Your task to perform on an android device: toggle translation in the chrome app Image 0: 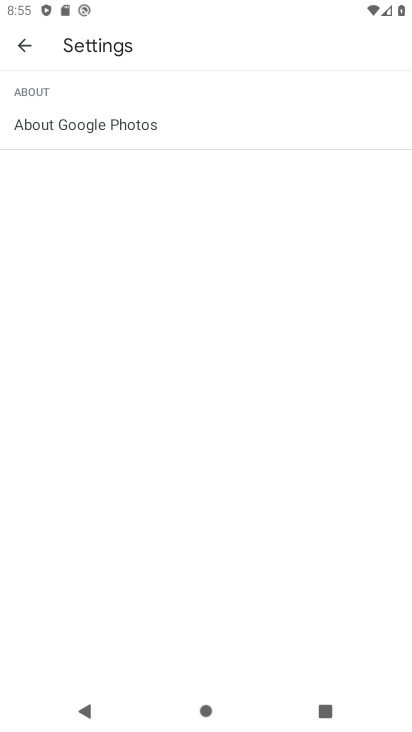
Step 0: press home button
Your task to perform on an android device: toggle translation in the chrome app Image 1: 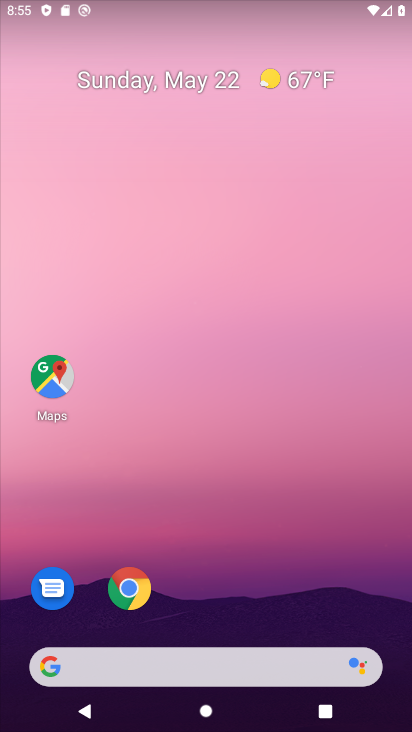
Step 1: drag from (201, 613) to (208, 56)
Your task to perform on an android device: toggle translation in the chrome app Image 2: 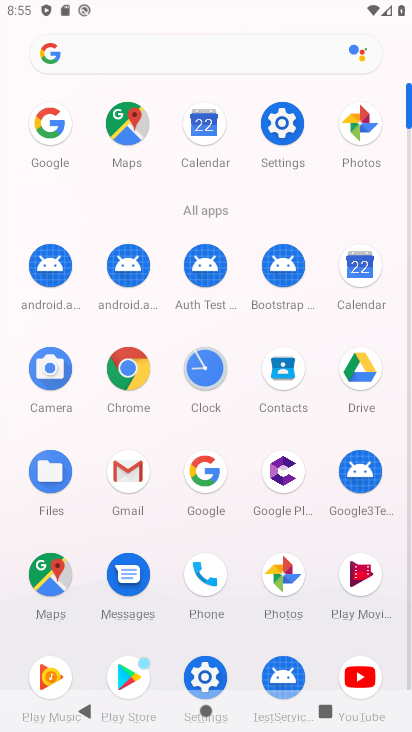
Step 2: click (55, 148)
Your task to perform on an android device: toggle translation in the chrome app Image 3: 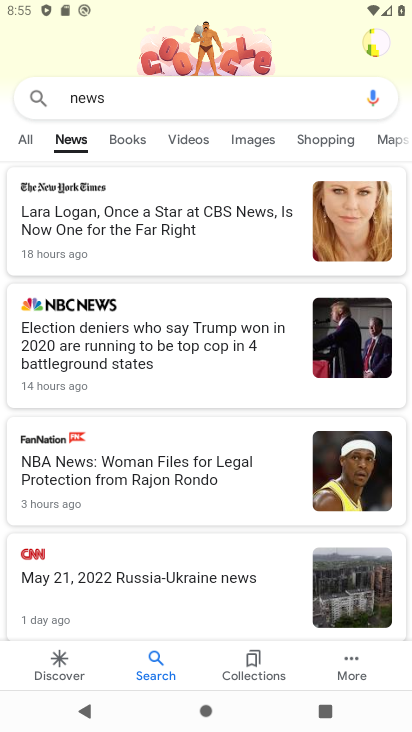
Step 3: task complete